Your task to perform on an android device: turn on bluetooth scan Image 0: 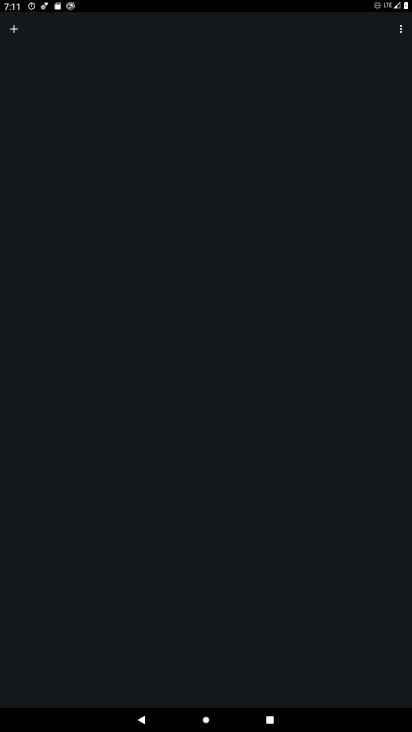
Step 0: press home button
Your task to perform on an android device: turn on bluetooth scan Image 1: 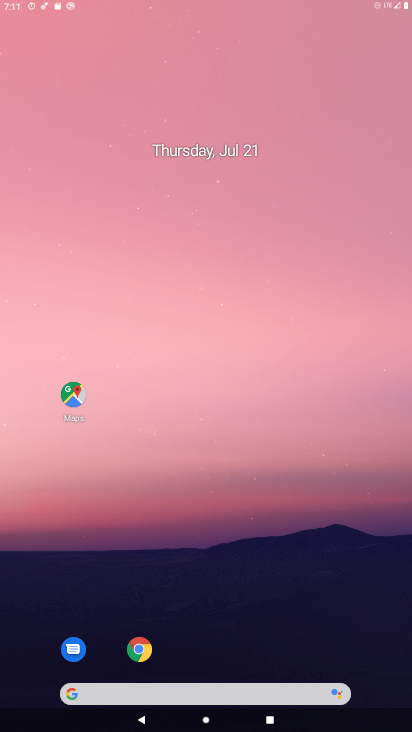
Step 1: drag from (364, 638) to (217, 20)
Your task to perform on an android device: turn on bluetooth scan Image 2: 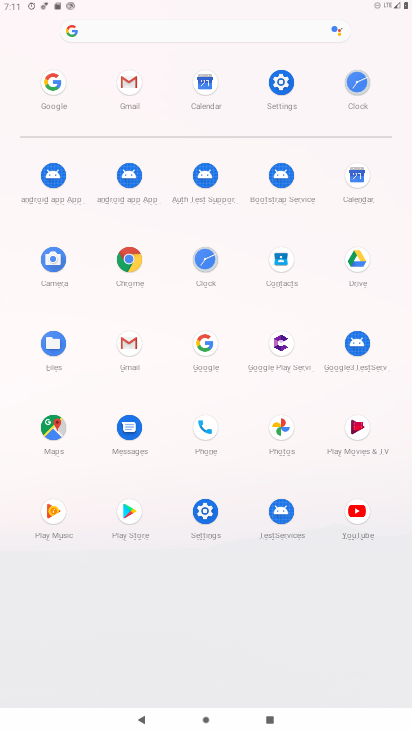
Step 2: click (210, 521)
Your task to perform on an android device: turn on bluetooth scan Image 3: 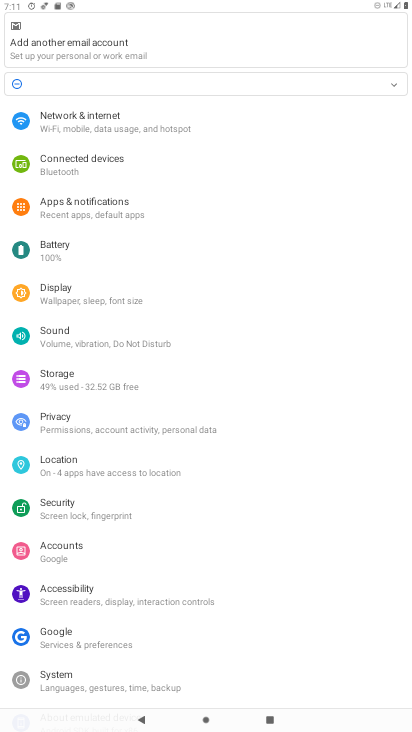
Step 3: click (68, 463)
Your task to perform on an android device: turn on bluetooth scan Image 4: 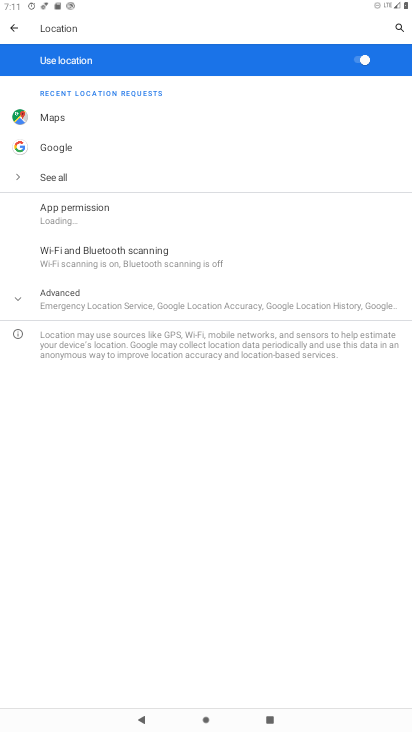
Step 4: click (144, 257)
Your task to perform on an android device: turn on bluetooth scan Image 5: 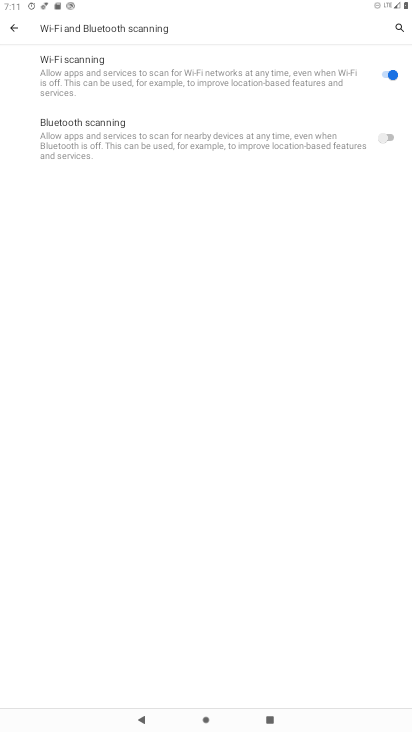
Step 5: click (377, 139)
Your task to perform on an android device: turn on bluetooth scan Image 6: 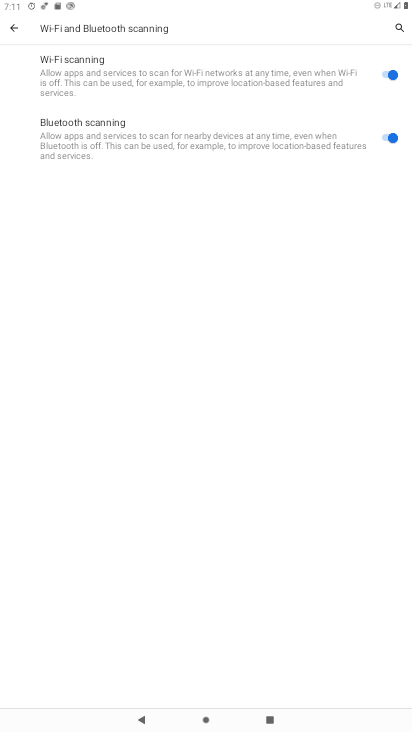
Step 6: task complete